Your task to perform on an android device: turn on wifi Image 0: 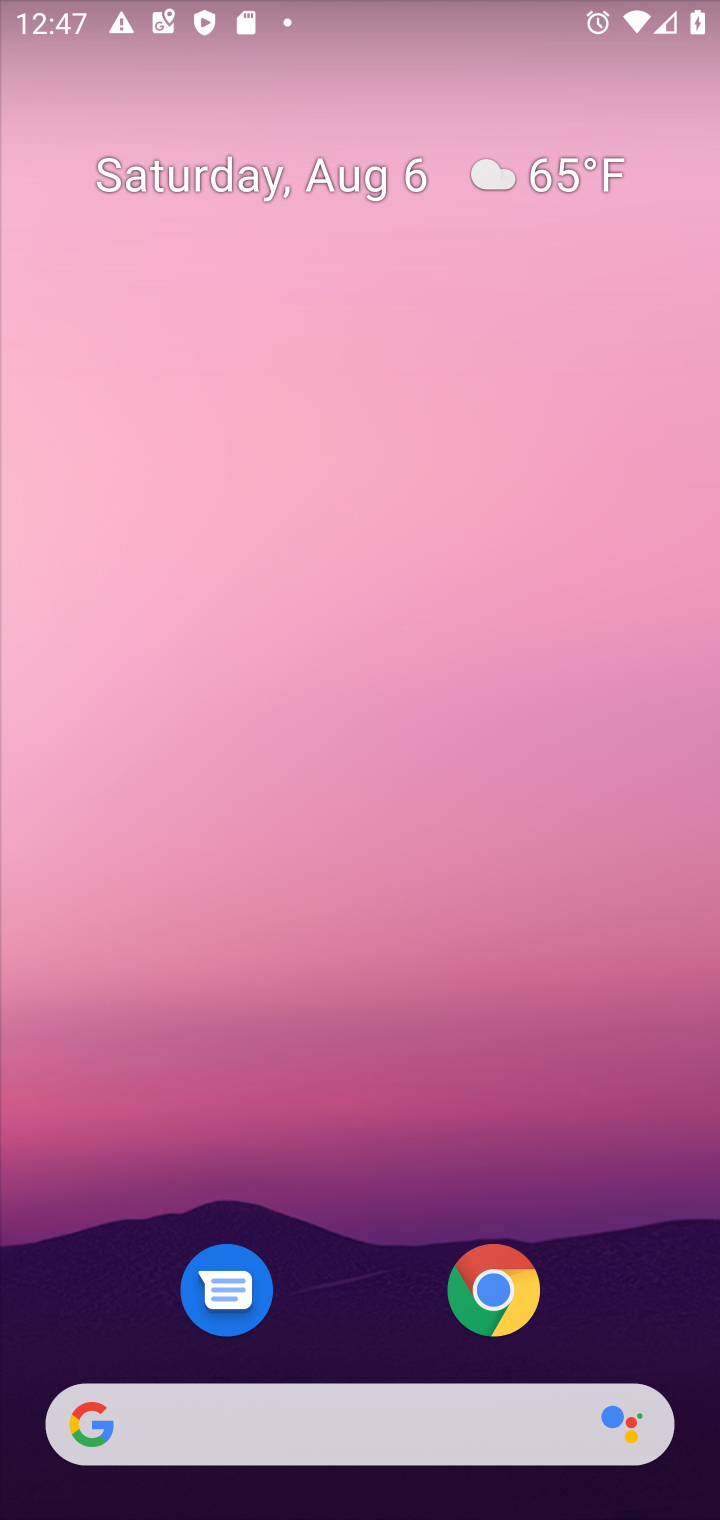
Step 0: drag from (371, 1332) to (468, 94)
Your task to perform on an android device: turn on wifi Image 1: 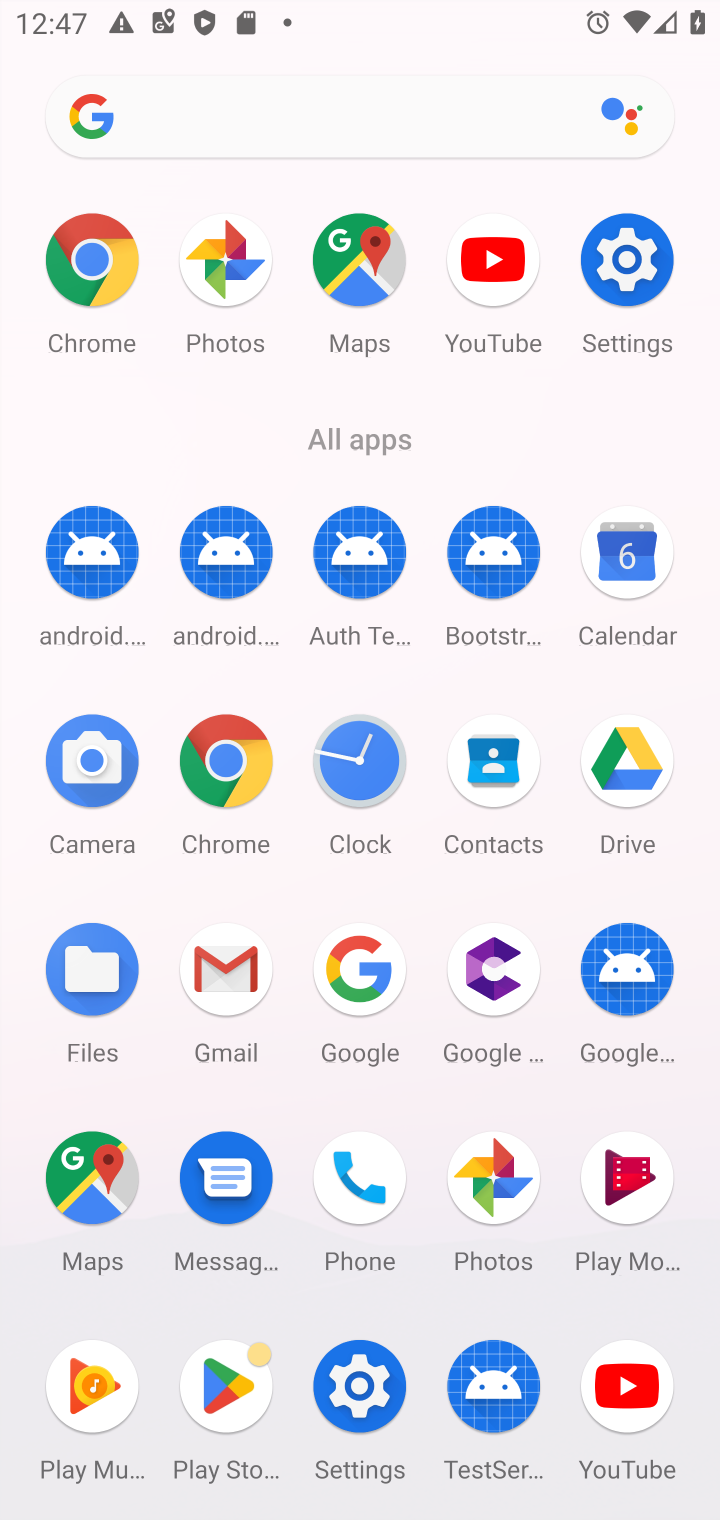
Step 1: task complete